Your task to perform on an android device: Open display settings Image 0: 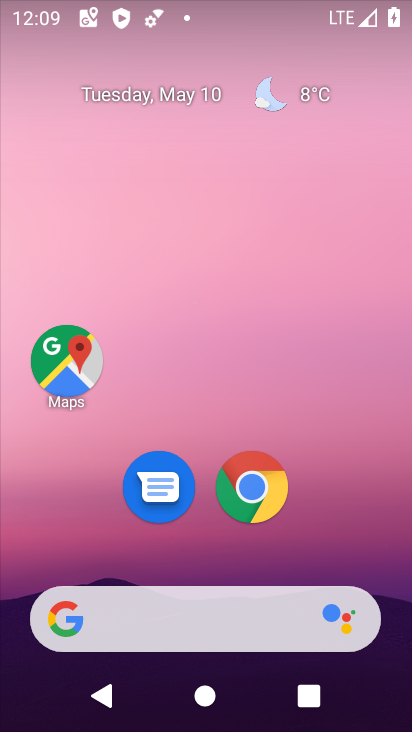
Step 0: click (253, 86)
Your task to perform on an android device: Open display settings Image 1: 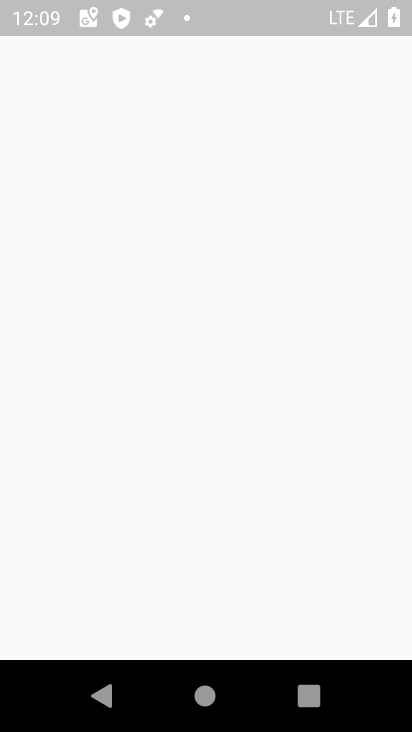
Step 1: press home button
Your task to perform on an android device: Open display settings Image 2: 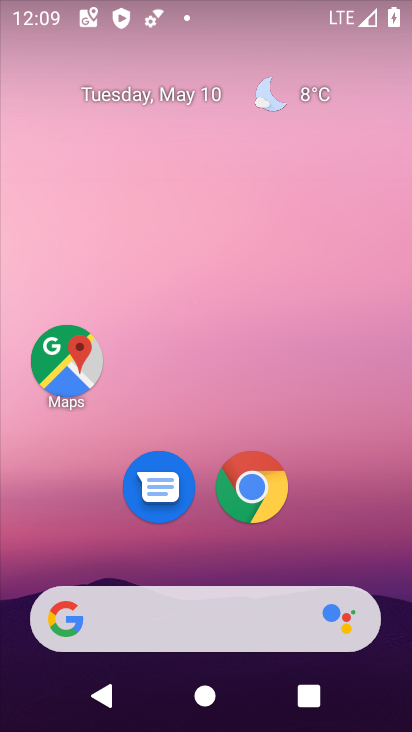
Step 2: drag from (210, 561) to (236, 208)
Your task to perform on an android device: Open display settings Image 3: 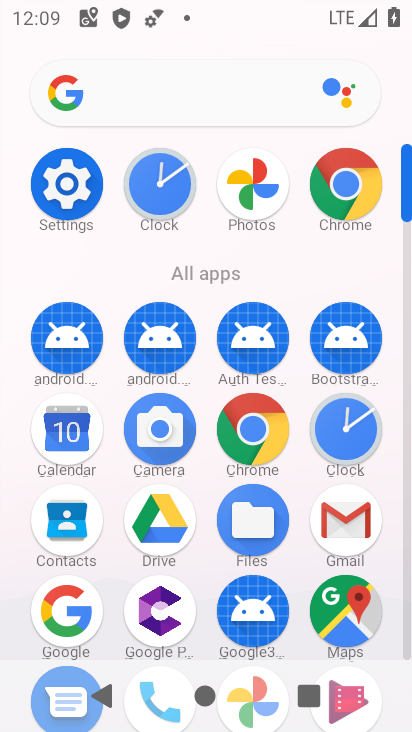
Step 3: click (60, 179)
Your task to perform on an android device: Open display settings Image 4: 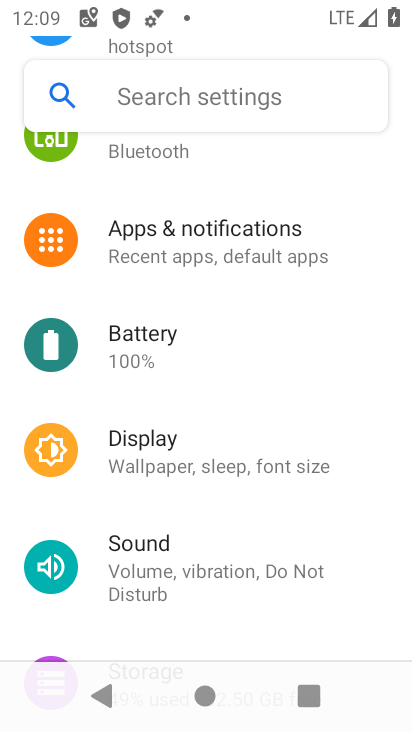
Step 4: click (185, 441)
Your task to perform on an android device: Open display settings Image 5: 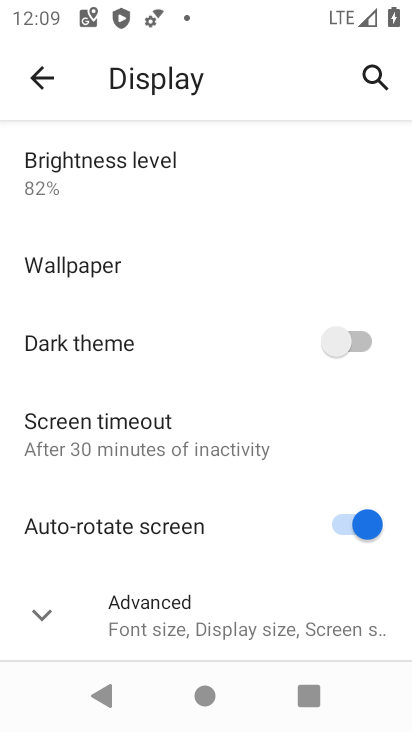
Step 5: click (45, 604)
Your task to perform on an android device: Open display settings Image 6: 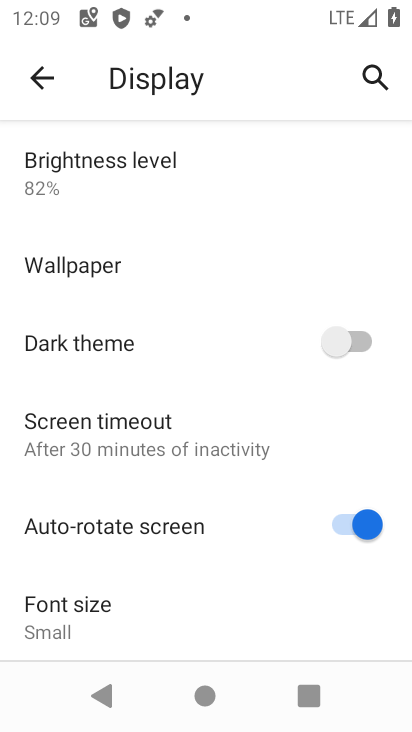
Step 6: task complete